Your task to perform on an android device: open app "Firefox Browser" (install if not already installed) Image 0: 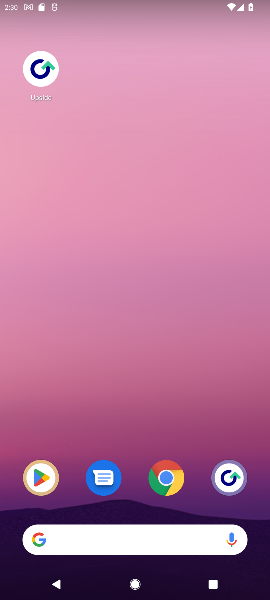
Step 0: press home button
Your task to perform on an android device: open app "Firefox Browser" (install if not already installed) Image 1: 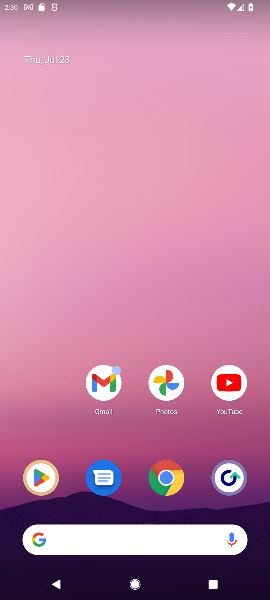
Step 1: click (39, 490)
Your task to perform on an android device: open app "Firefox Browser" (install if not already installed) Image 2: 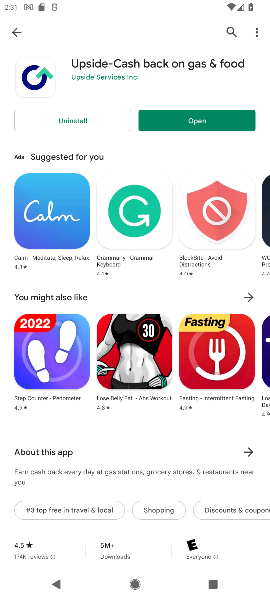
Step 2: click (14, 35)
Your task to perform on an android device: open app "Firefox Browser" (install if not already installed) Image 3: 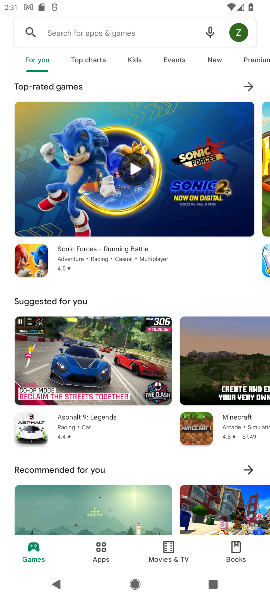
Step 3: click (120, 31)
Your task to perform on an android device: open app "Firefox Browser" (install if not already installed) Image 4: 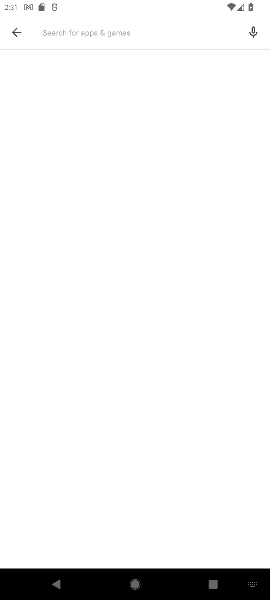
Step 4: type "Firefox Browser"
Your task to perform on an android device: open app "Firefox Browser" (install if not already installed) Image 5: 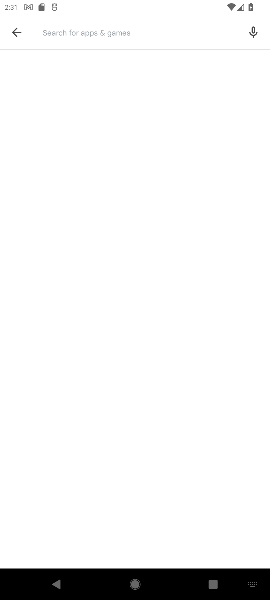
Step 5: click (91, 32)
Your task to perform on an android device: open app "Firefox Browser" (install if not already installed) Image 6: 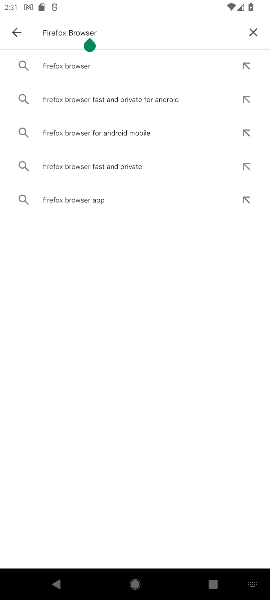
Step 6: click (66, 62)
Your task to perform on an android device: open app "Firefox Browser" (install if not already installed) Image 7: 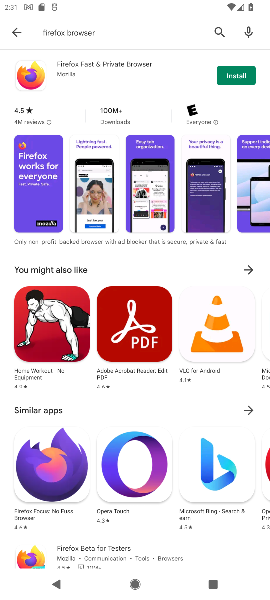
Step 7: click (239, 72)
Your task to perform on an android device: open app "Firefox Browser" (install if not already installed) Image 8: 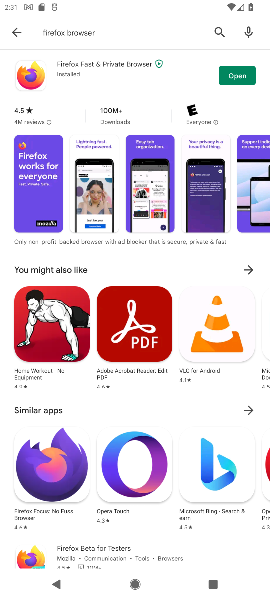
Step 8: click (232, 72)
Your task to perform on an android device: open app "Firefox Browser" (install if not already installed) Image 9: 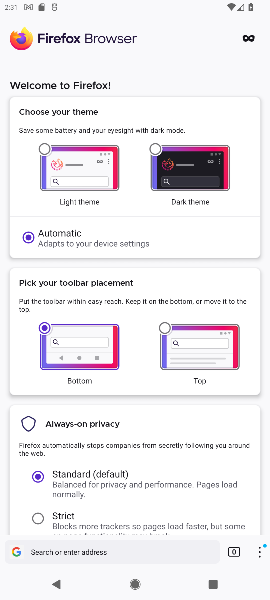
Step 9: drag from (204, 474) to (173, 138)
Your task to perform on an android device: open app "Firefox Browser" (install if not already installed) Image 10: 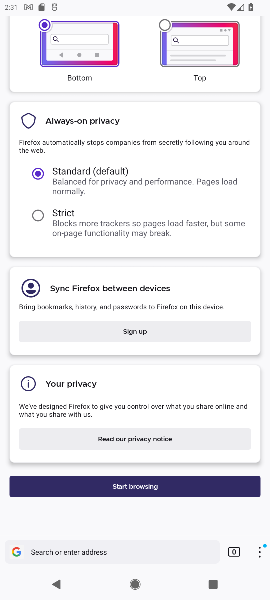
Step 10: click (140, 483)
Your task to perform on an android device: open app "Firefox Browser" (install if not already installed) Image 11: 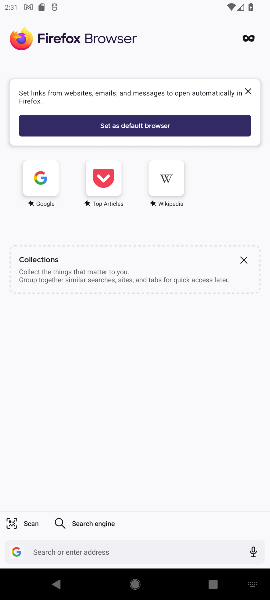
Step 11: click (152, 127)
Your task to perform on an android device: open app "Firefox Browser" (install if not already installed) Image 12: 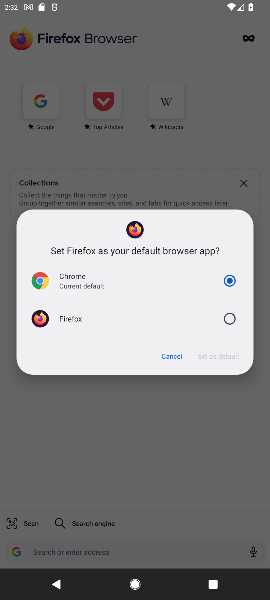
Step 12: click (38, 98)
Your task to perform on an android device: open app "Firefox Browser" (install if not already installed) Image 13: 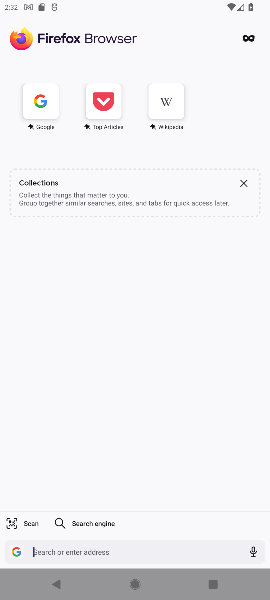
Step 13: task complete